Your task to perform on an android device: Open settings Image 0: 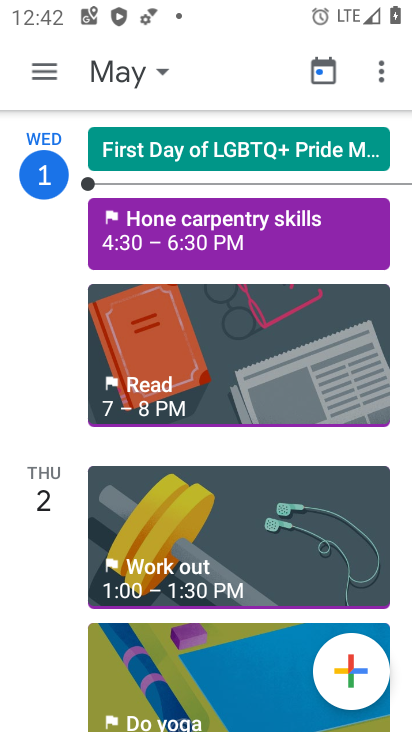
Step 0: press home button
Your task to perform on an android device: Open settings Image 1: 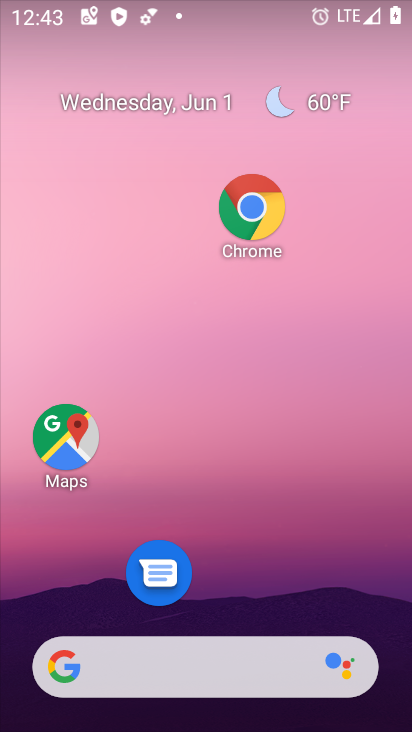
Step 1: drag from (208, 588) to (252, 275)
Your task to perform on an android device: Open settings Image 2: 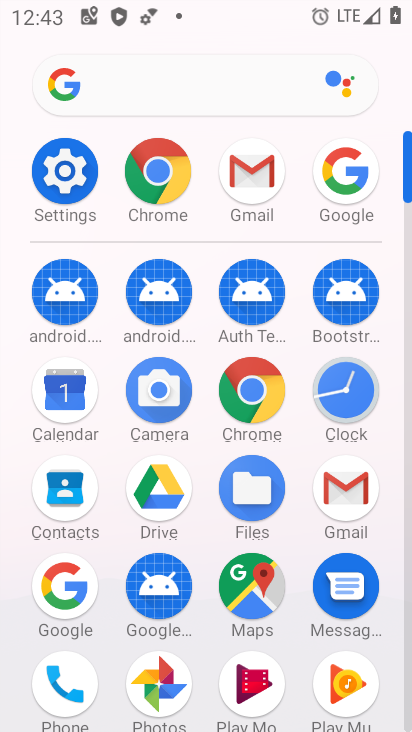
Step 2: click (73, 176)
Your task to perform on an android device: Open settings Image 3: 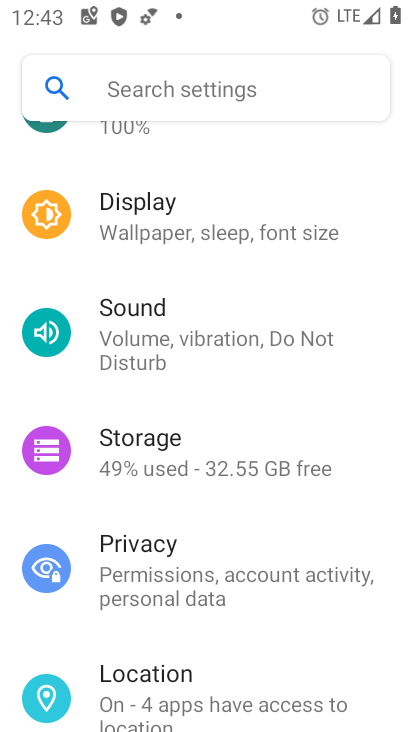
Step 3: task complete